Your task to perform on an android device: Go to Google maps Image 0: 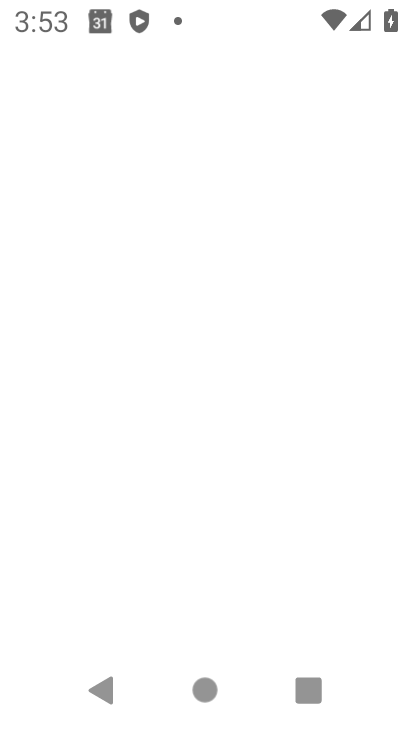
Step 0: press home button
Your task to perform on an android device: Go to Google maps Image 1: 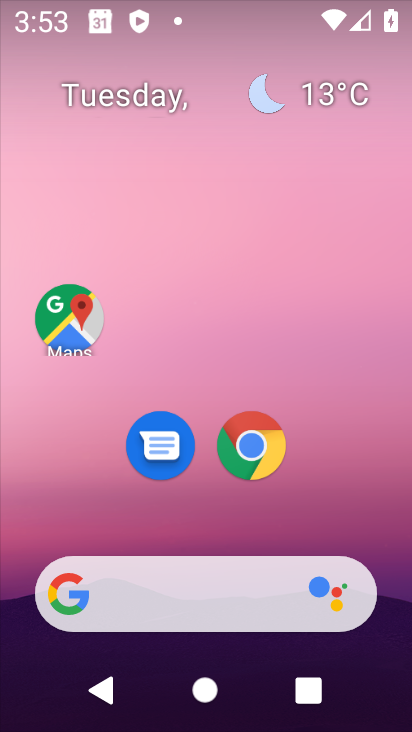
Step 1: click (71, 323)
Your task to perform on an android device: Go to Google maps Image 2: 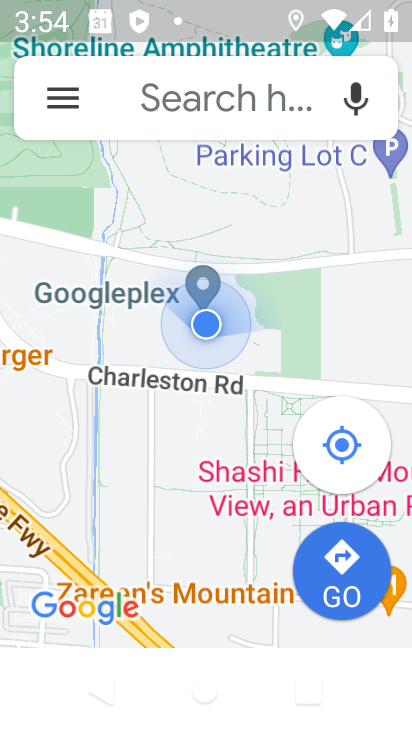
Step 2: task complete